Your task to perform on an android device: Search for good Japanese restaurants Image 0: 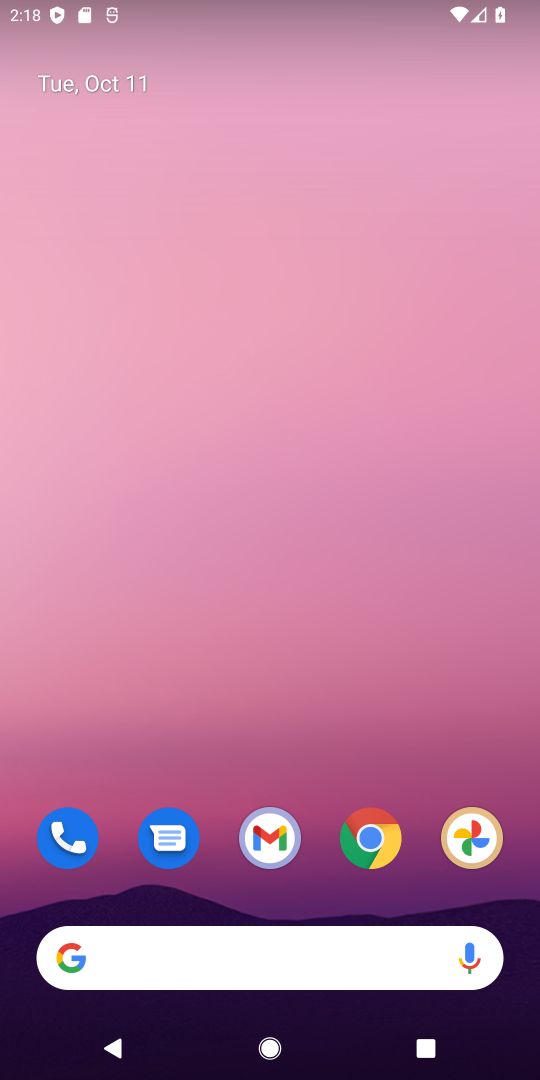
Step 0: click (372, 845)
Your task to perform on an android device: Search for good Japanese restaurants Image 1: 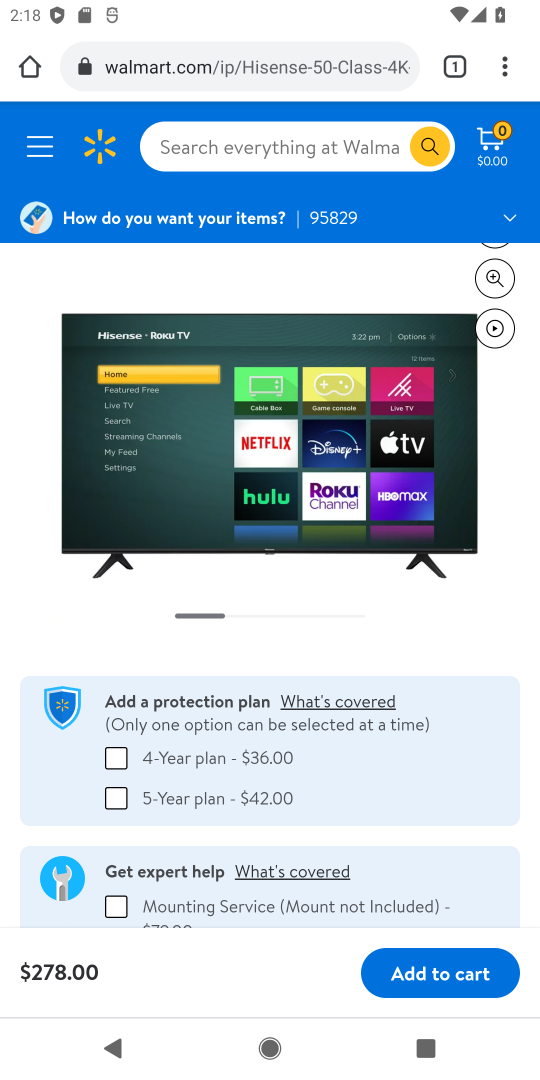
Step 1: click (226, 59)
Your task to perform on an android device: Search for good Japanese restaurants Image 2: 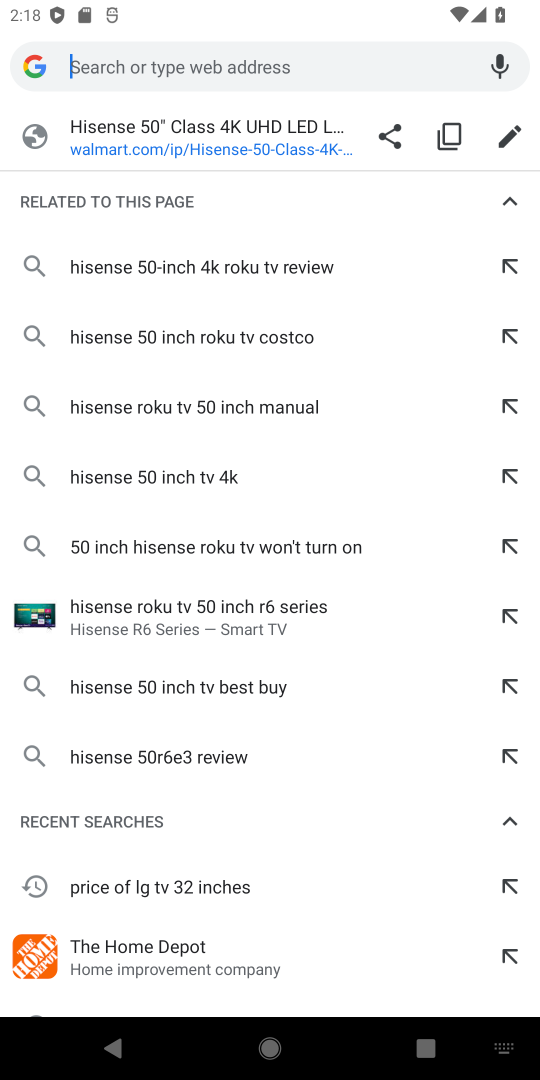
Step 2: type "good japenese restaurants"
Your task to perform on an android device: Search for good Japanese restaurants Image 3: 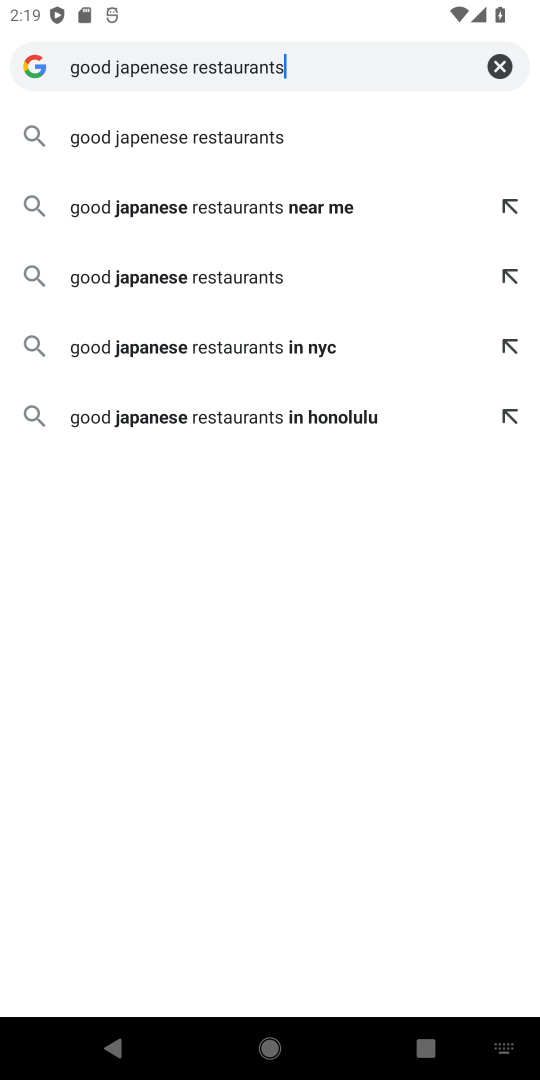
Step 3: click (237, 130)
Your task to perform on an android device: Search for good Japanese restaurants Image 4: 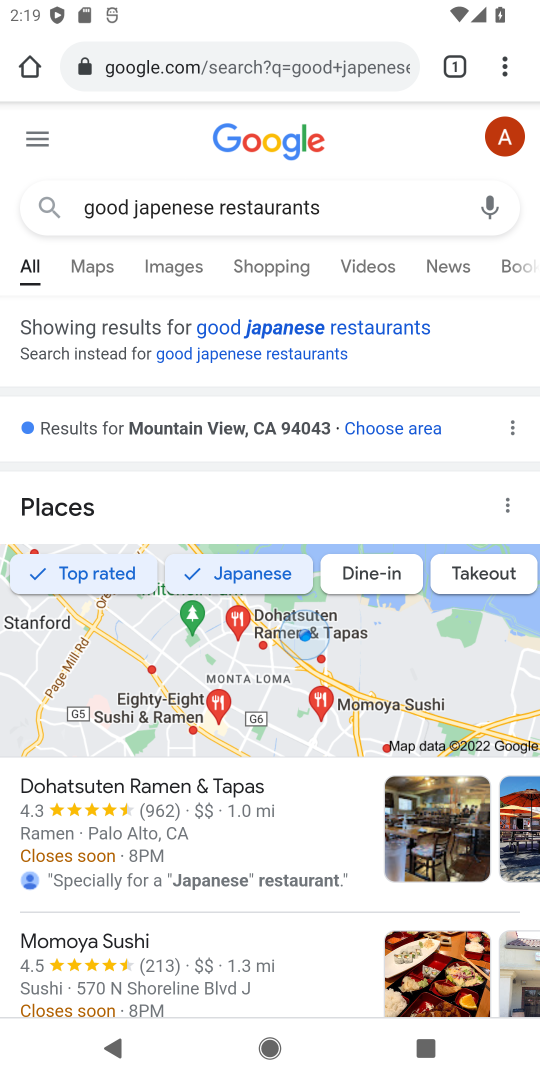
Step 4: drag from (261, 868) to (314, 334)
Your task to perform on an android device: Search for good Japanese restaurants Image 5: 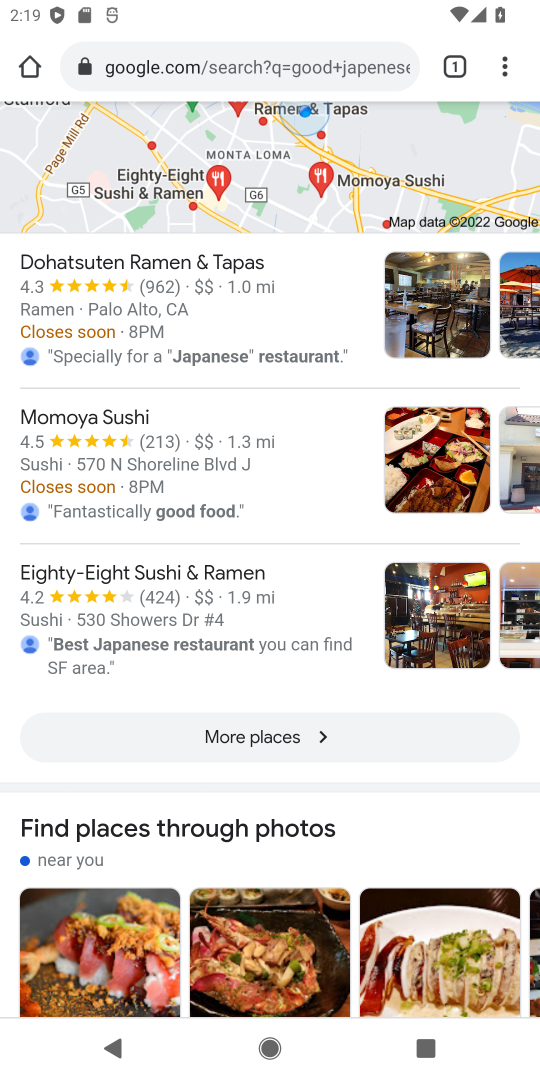
Step 5: click (219, 729)
Your task to perform on an android device: Search for good Japanese restaurants Image 6: 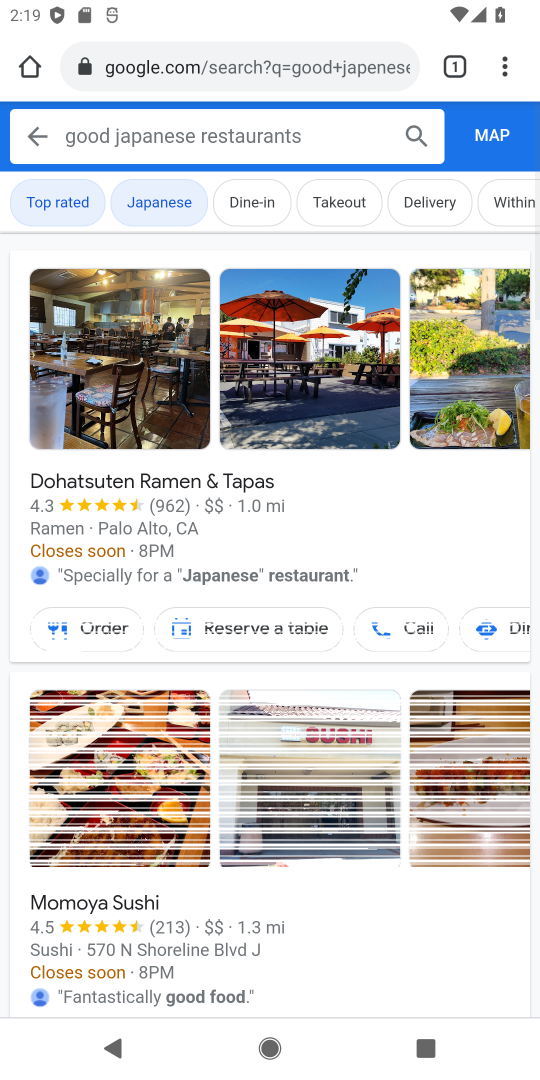
Step 6: drag from (283, 970) to (298, 415)
Your task to perform on an android device: Search for good Japanese restaurants Image 7: 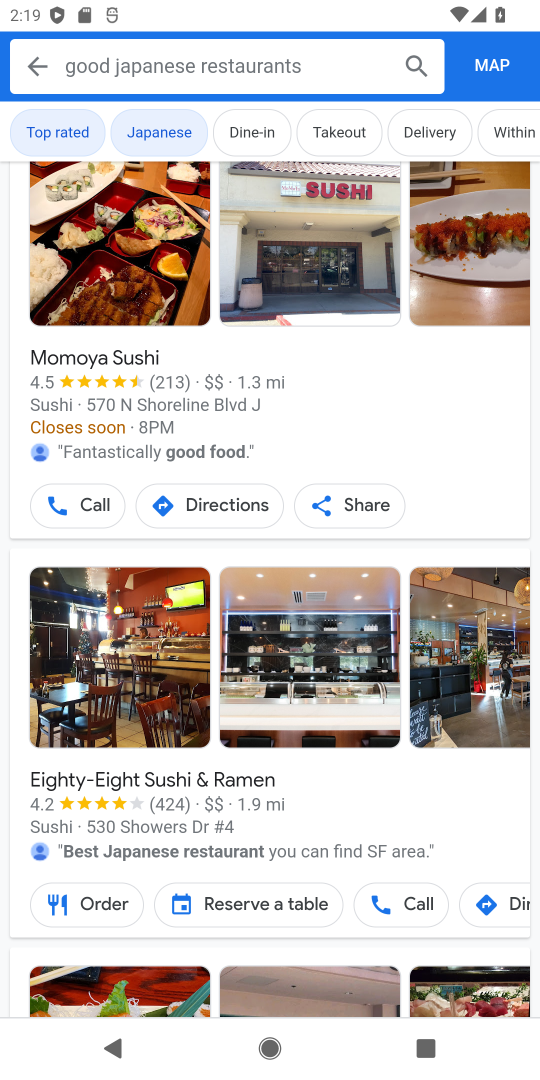
Step 7: drag from (301, 857) to (396, 380)
Your task to perform on an android device: Search for good Japanese restaurants Image 8: 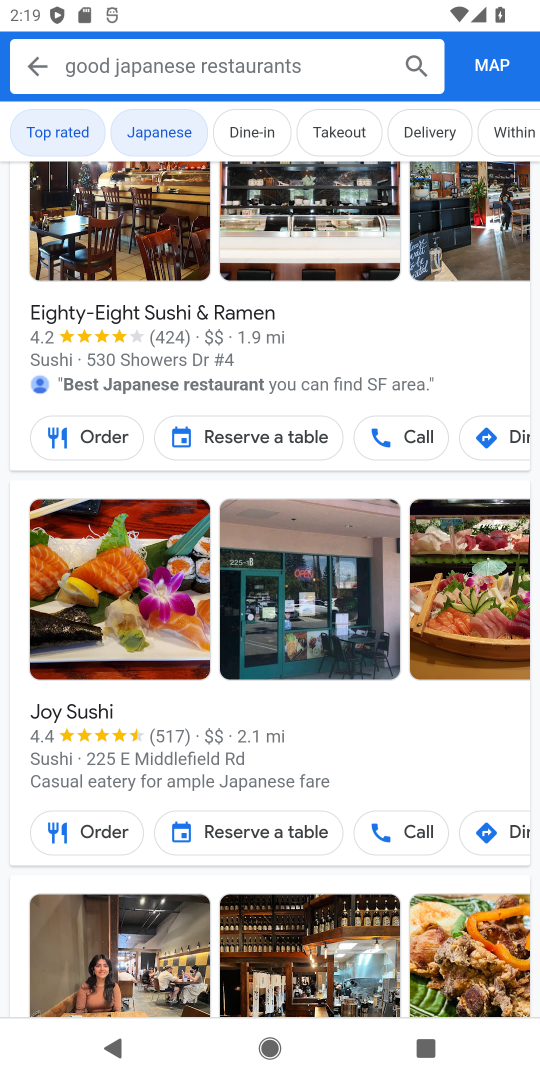
Step 8: drag from (380, 844) to (378, 233)
Your task to perform on an android device: Search for good Japanese restaurants Image 9: 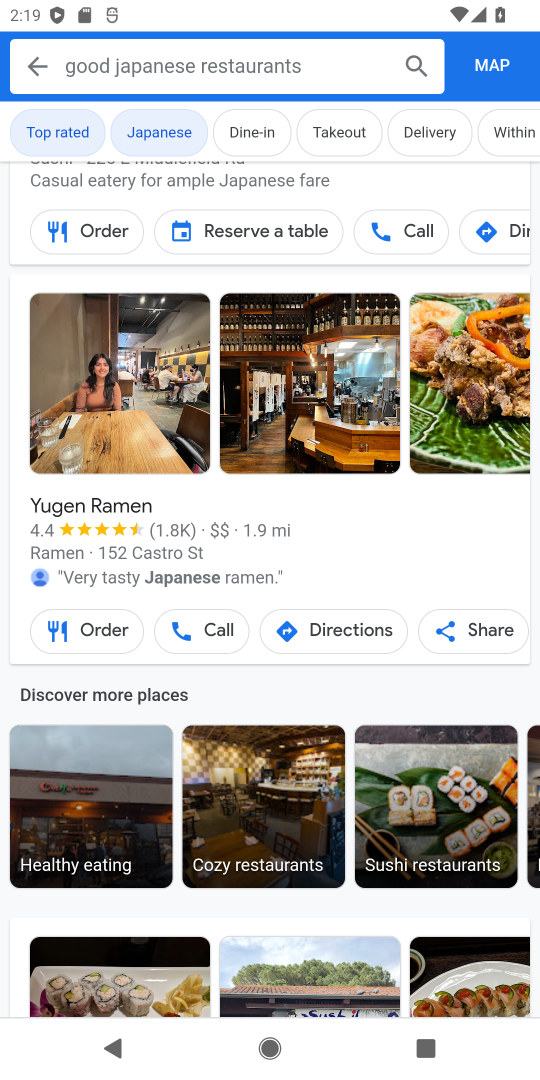
Step 9: drag from (94, 913) to (182, 212)
Your task to perform on an android device: Search for good Japanese restaurants Image 10: 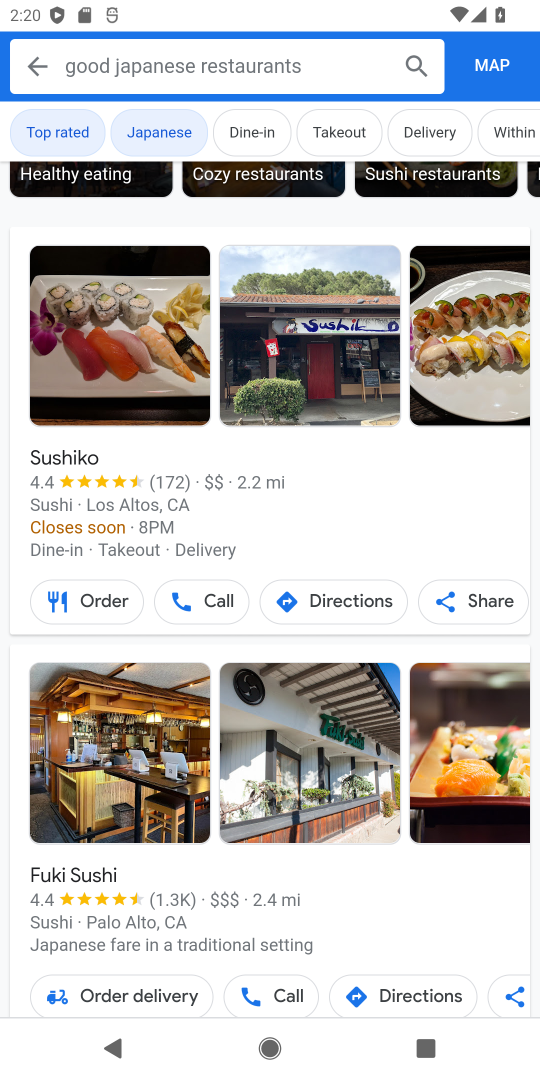
Step 10: drag from (382, 905) to (365, 291)
Your task to perform on an android device: Search for good Japanese restaurants Image 11: 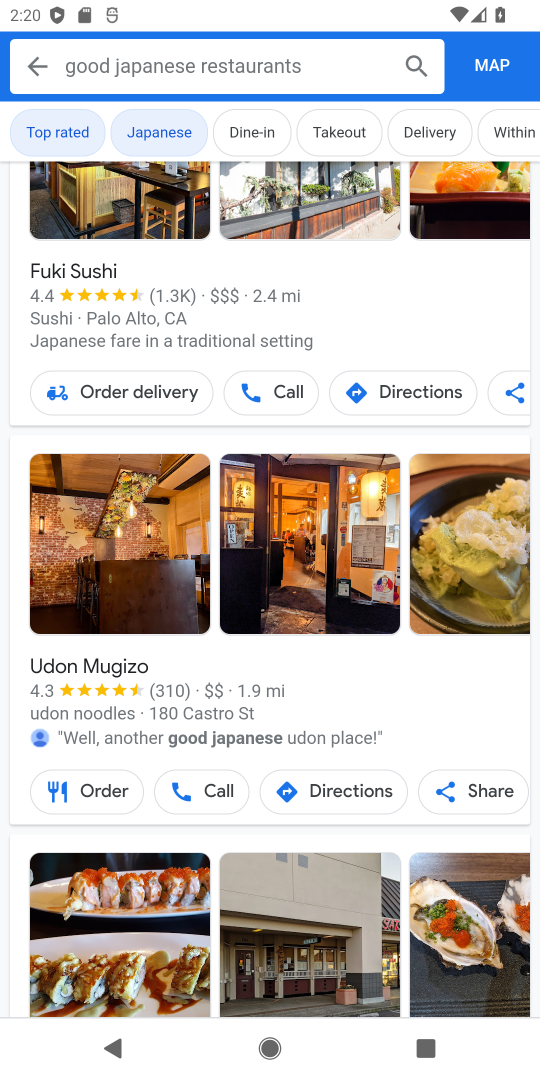
Step 11: drag from (340, 892) to (350, 405)
Your task to perform on an android device: Search for good Japanese restaurants Image 12: 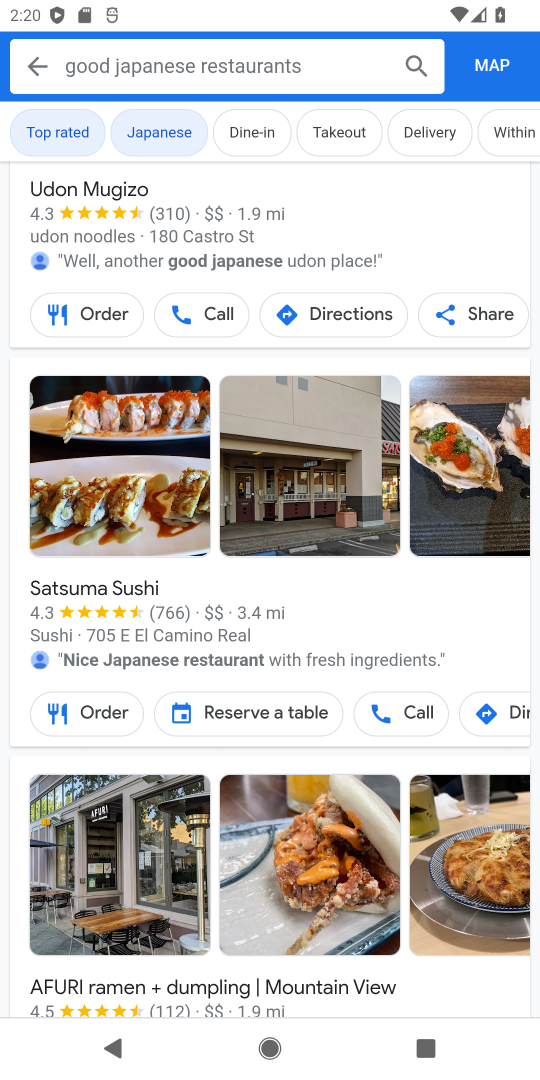
Step 12: click (52, 186)
Your task to perform on an android device: Search for good Japanese restaurants Image 13: 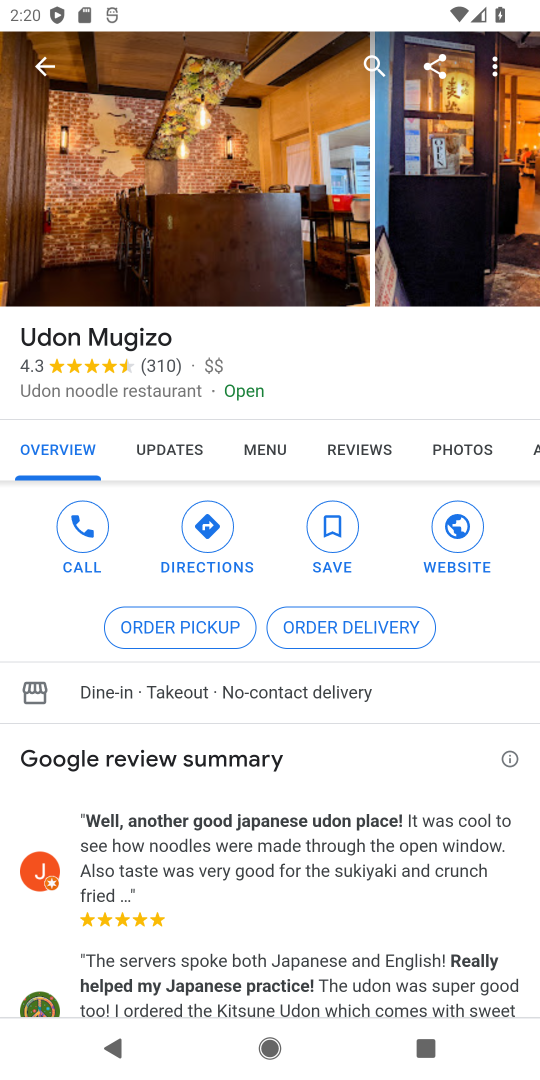
Step 13: task complete